Your task to perform on an android device: turn off location Image 0: 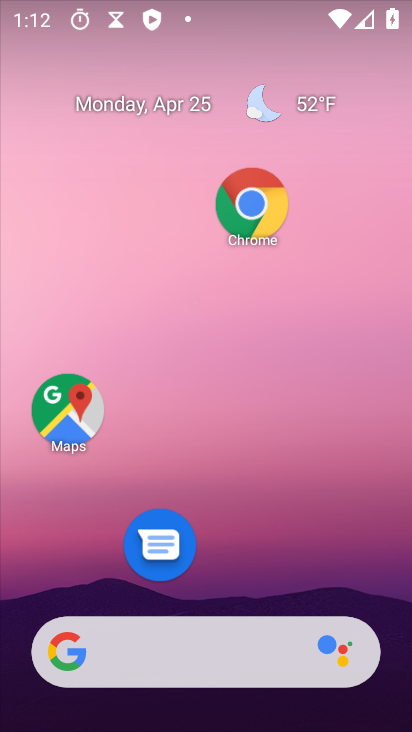
Step 0: drag from (326, 687) to (394, 264)
Your task to perform on an android device: turn off location Image 1: 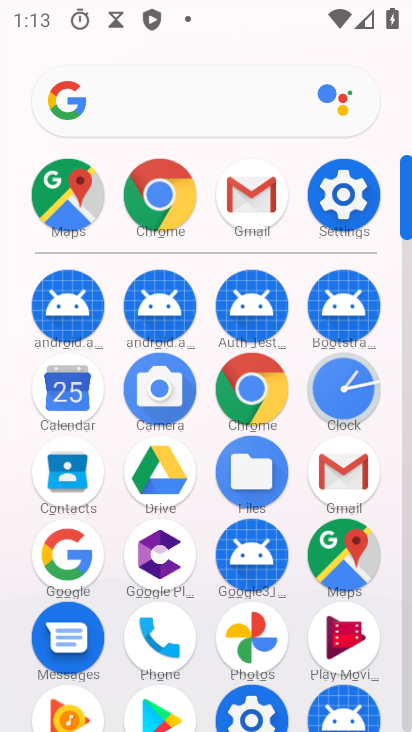
Step 1: click (358, 199)
Your task to perform on an android device: turn off location Image 2: 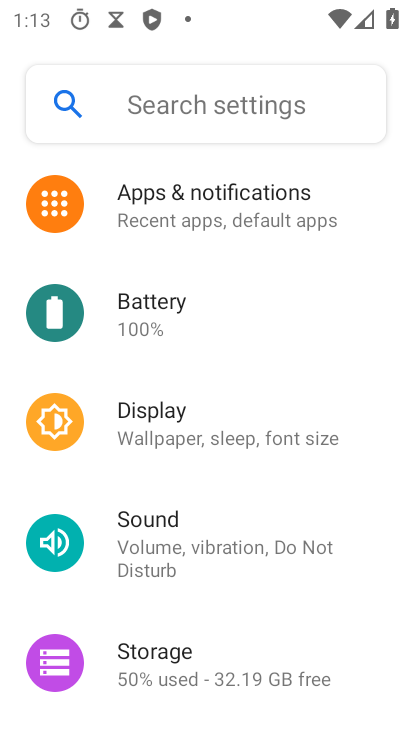
Step 2: drag from (198, 584) to (283, 277)
Your task to perform on an android device: turn off location Image 3: 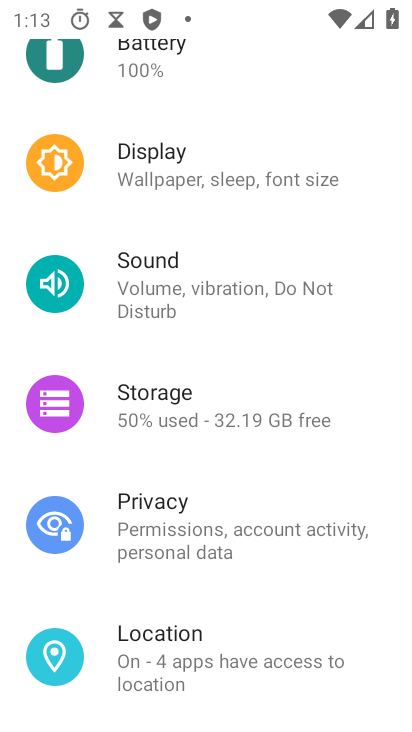
Step 3: click (183, 635)
Your task to perform on an android device: turn off location Image 4: 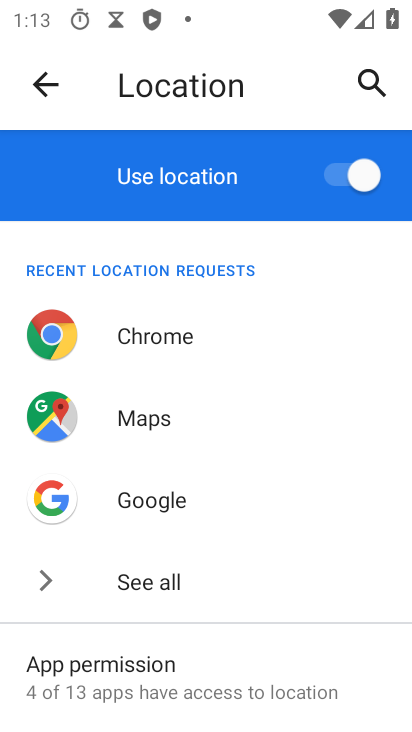
Step 4: click (344, 193)
Your task to perform on an android device: turn off location Image 5: 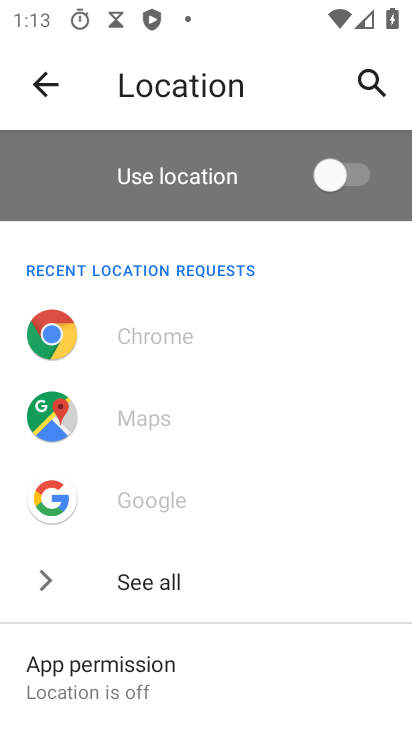
Step 5: task complete